Your task to perform on an android device: What's the weather going to be tomorrow? Image 0: 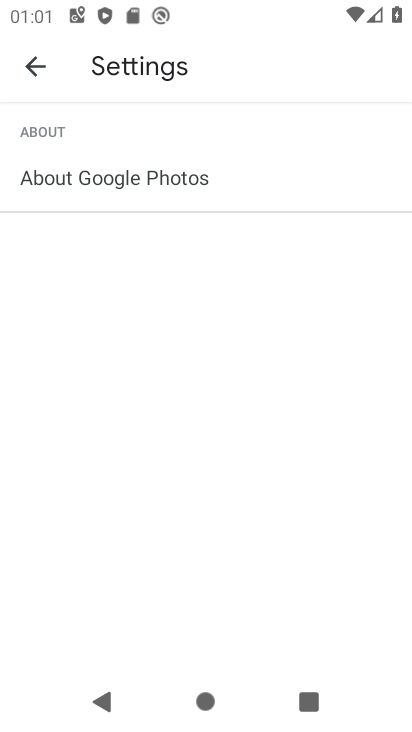
Step 0: press home button
Your task to perform on an android device: What's the weather going to be tomorrow? Image 1: 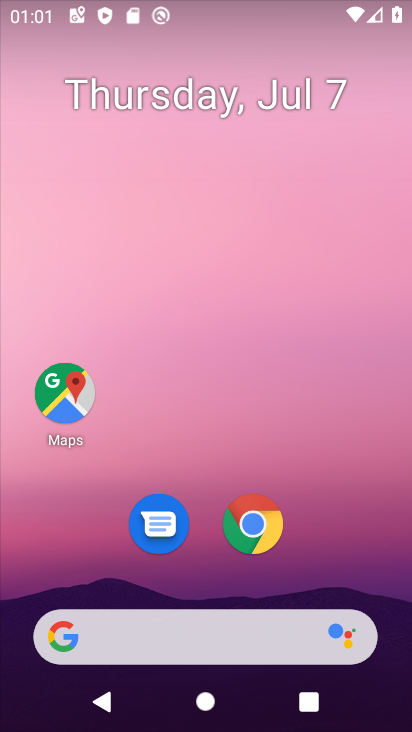
Step 1: click (259, 634)
Your task to perform on an android device: What's the weather going to be tomorrow? Image 2: 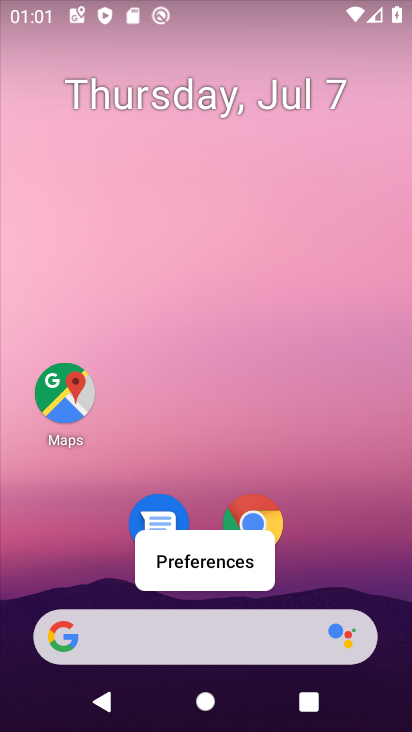
Step 2: click (231, 634)
Your task to perform on an android device: What's the weather going to be tomorrow? Image 3: 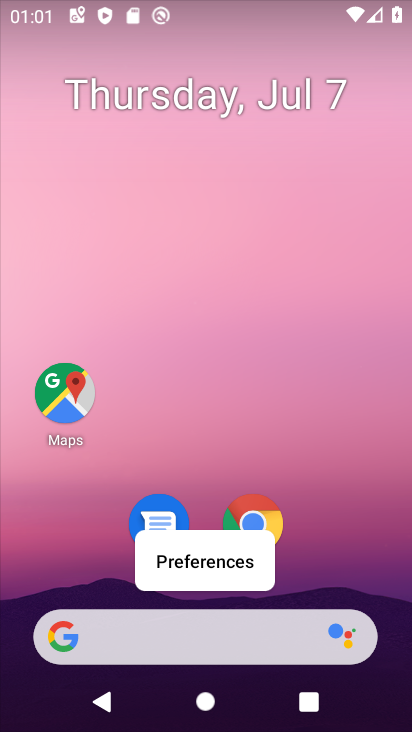
Step 3: click (163, 634)
Your task to perform on an android device: What's the weather going to be tomorrow? Image 4: 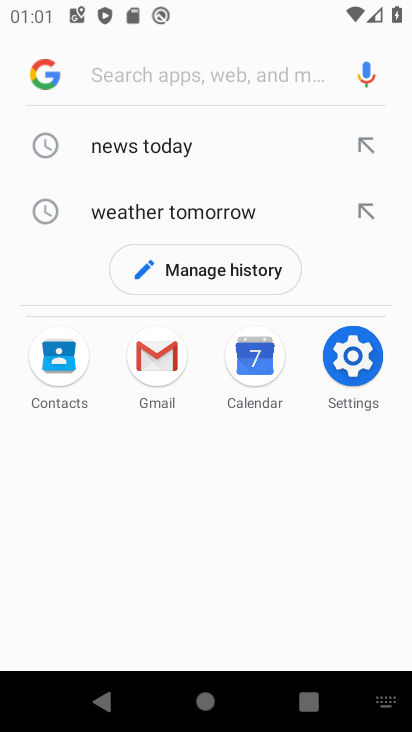
Step 4: click (200, 206)
Your task to perform on an android device: What's the weather going to be tomorrow? Image 5: 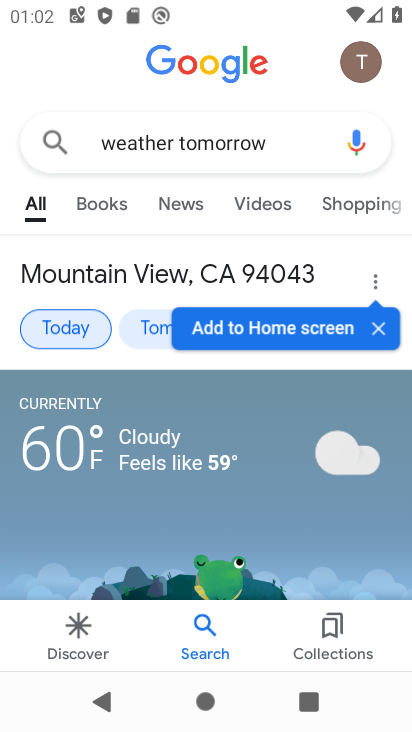
Step 5: click (75, 328)
Your task to perform on an android device: What's the weather going to be tomorrow? Image 6: 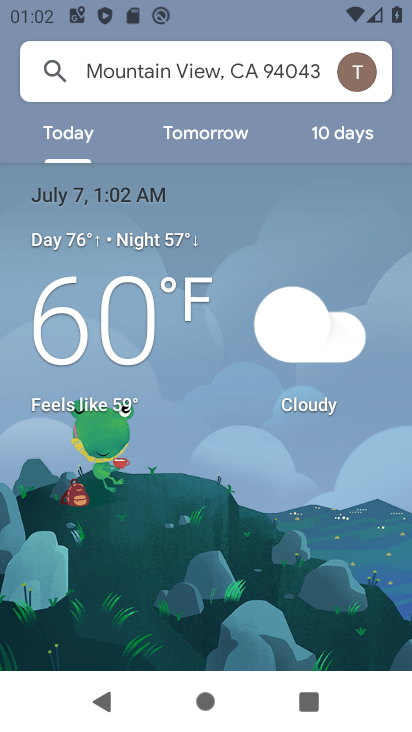
Step 6: click (218, 134)
Your task to perform on an android device: What's the weather going to be tomorrow? Image 7: 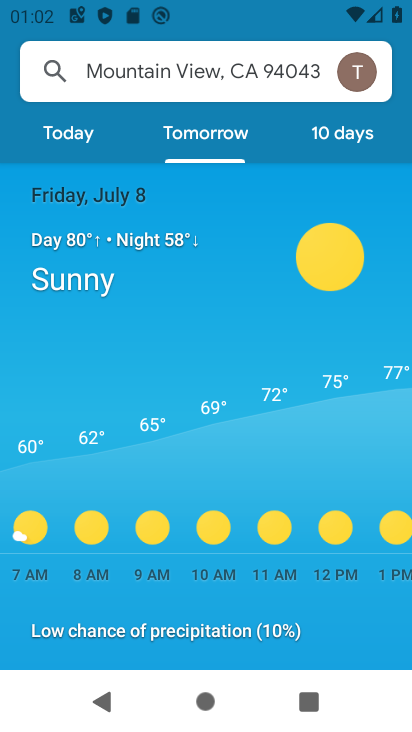
Step 7: task complete